Your task to perform on an android device: turn on bluetooth scan Image 0: 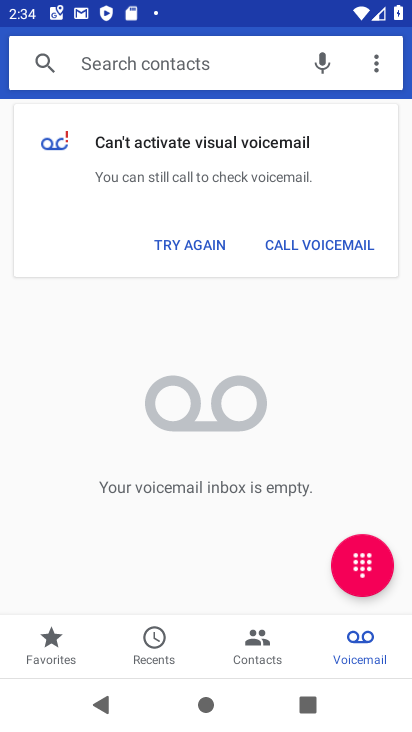
Step 0: press home button
Your task to perform on an android device: turn on bluetooth scan Image 1: 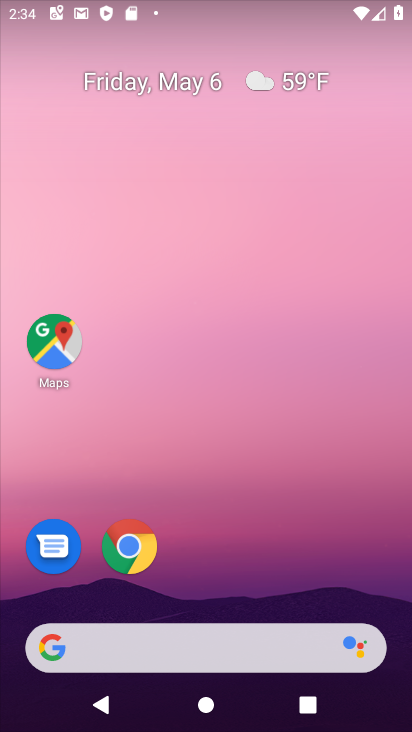
Step 1: drag from (258, 534) to (230, 177)
Your task to perform on an android device: turn on bluetooth scan Image 2: 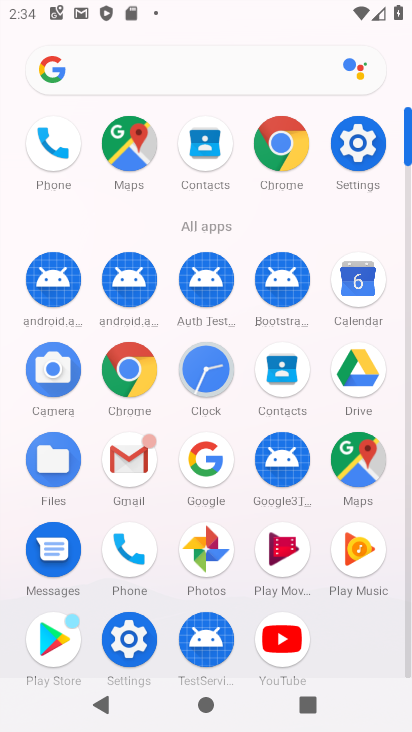
Step 2: click (352, 156)
Your task to perform on an android device: turn on bluetooth scan Image 3: 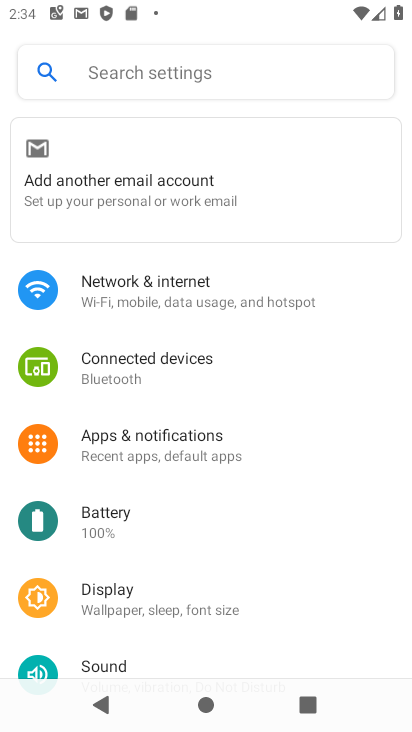
Step 3: drag from (251, 643) to (289, 272)
Your task to perform on an android device: turn on bluetooth scan Image 4: 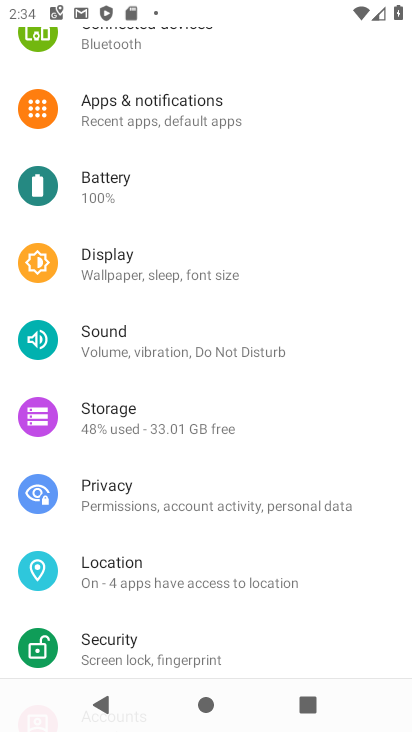
Step 4: click (213, 573)
Your task to perform on an android device: turn on bluetooth scan Image 5: 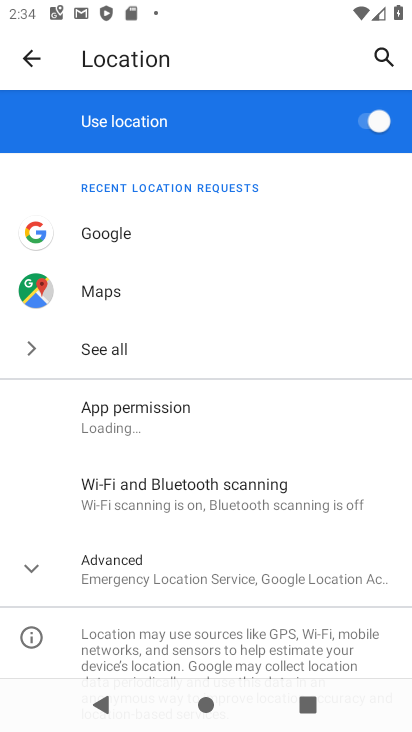
Step 5: click (224, 504)
Your task to perform on an android device: turn on bluetooth scan Image 6: 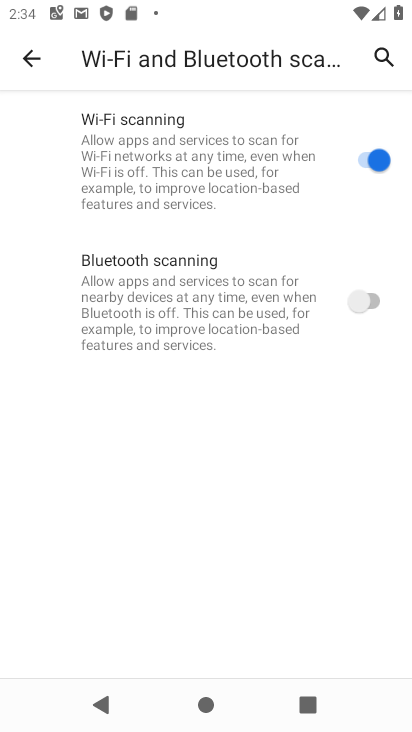
Step 6: click (378, 299)
Your task to perform on an android device: turn on bluetooth scan Image 7: 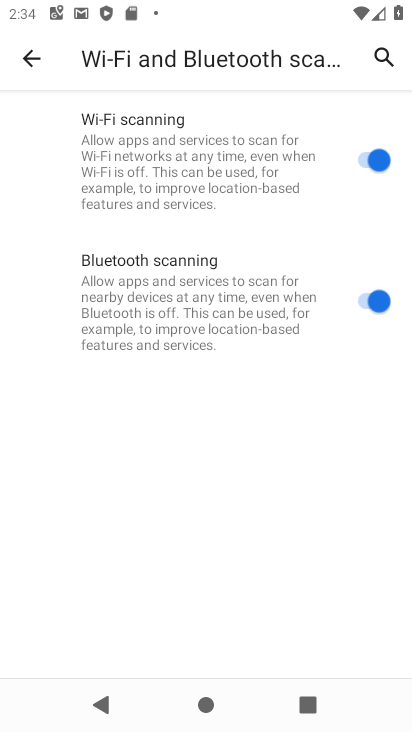
Step 7: task complete